Your task to perform on an android device: Open Chrome and go to settings Image 0: 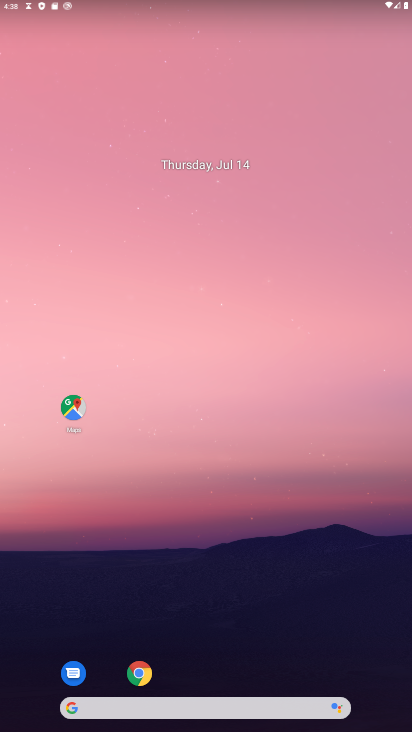
Step 0: drag from (273, 646) to (284, 86)
Your task to perform on an android device: Open Chrome and go to settings Image 1: 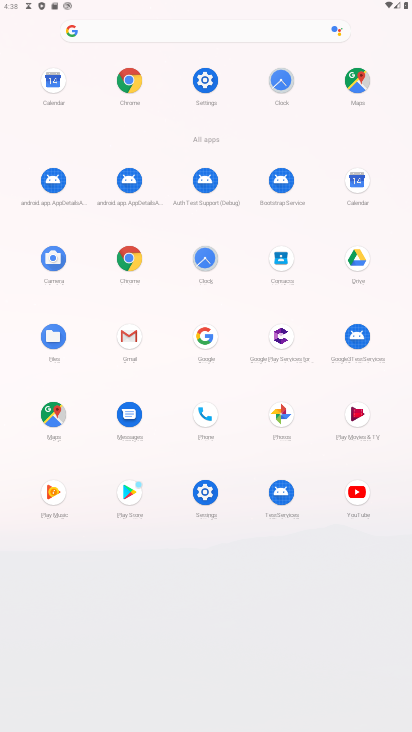
Step 1: click (133, 83)
Your task to perform on an android device: Open Chrome and go to settings Image 2: 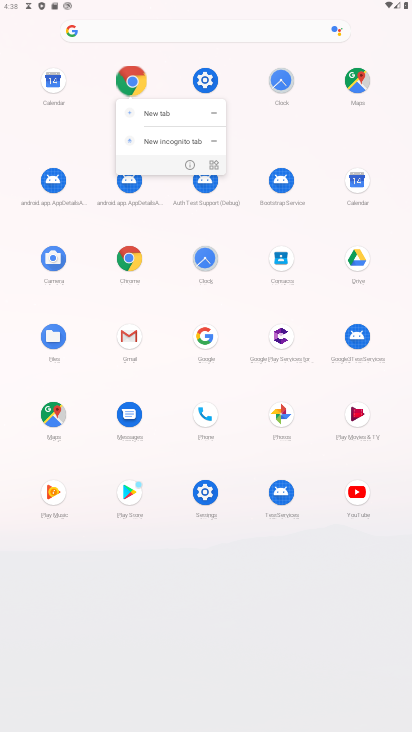
Step 2: click (141, 87)
Your task to perform on an android device: Open Chrome and go to settings Image 3: 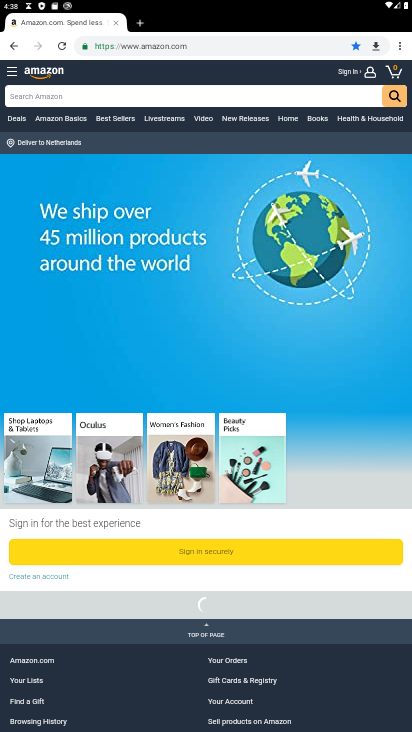
Step 3: drag from (393, 48) to (299, 306)
Your task to perform on an android device: Open Chrome and go to settings Image 4: 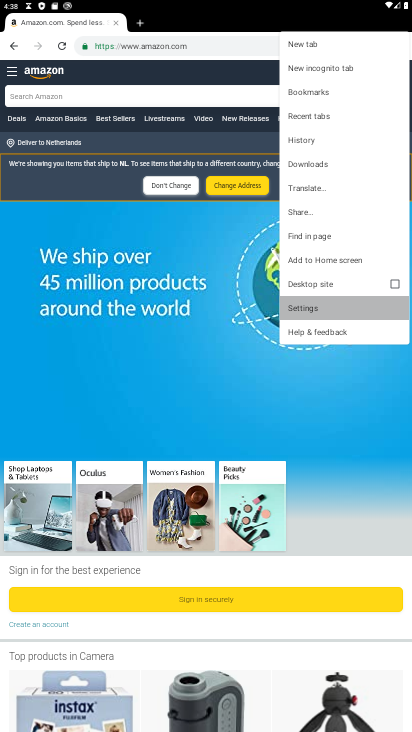
Step 4: click (300, 306)
Your task to perform on an android device: Open Chrome and go to settings Image 5: 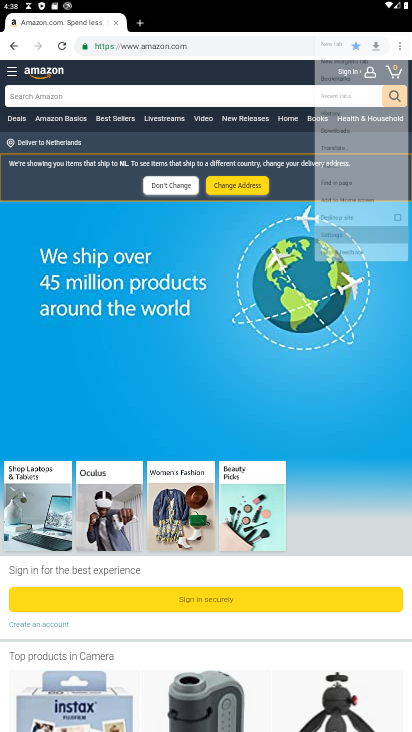
Step 5: click (300, 306)
Your task to perform on an android device: Open Chrome and go to settings Image 6: 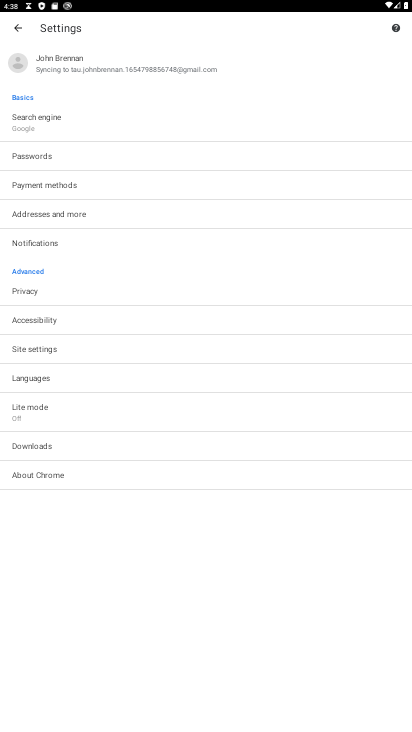
Step 6: task complete